Your task to perform on an android device: Open settings on Google Maps Image 0: 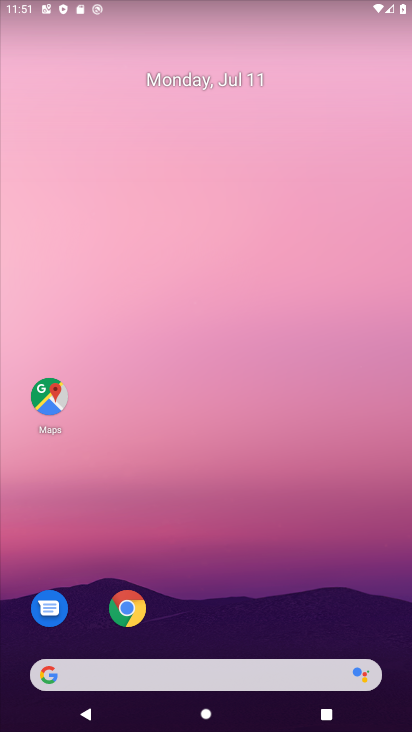
Step 0: click (49, 397)
Your task to perform on an android device: Open settings on Google Maps Image 1: 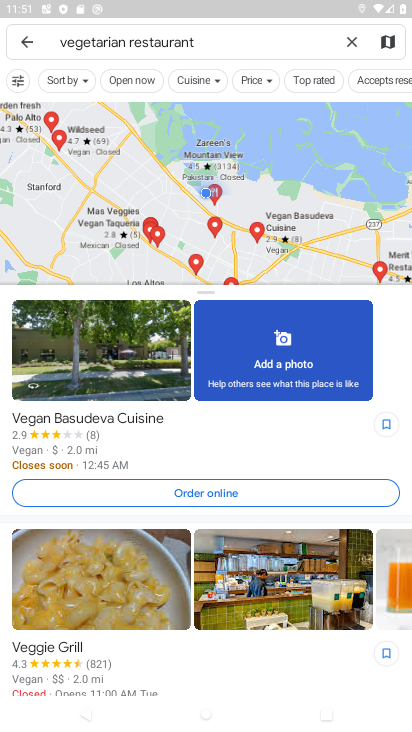
Step 1: click (22, 35)
Your task to perform on an android device: Open settings on Google Maps Image 2: 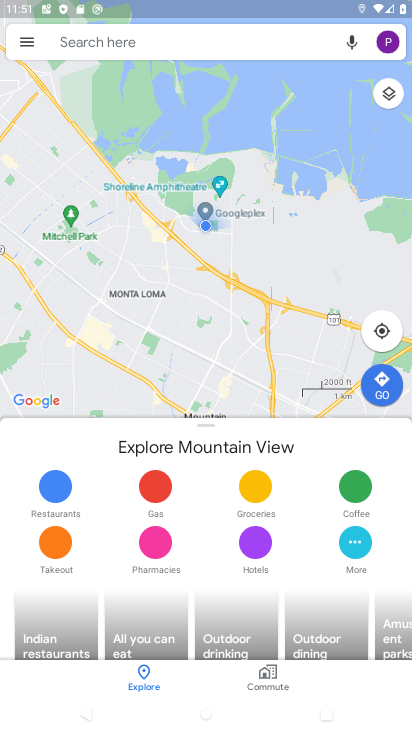
Step 2: click (22, 35)
Your task to perform on an android device: Open settings on Google Maps Image 3: 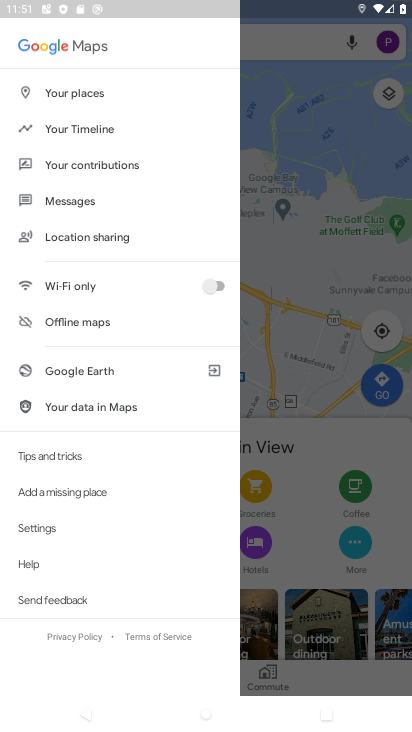
Step 3: click (33, 539)
Your task to perform on an android device: Open settings on Google Maps Image 4: 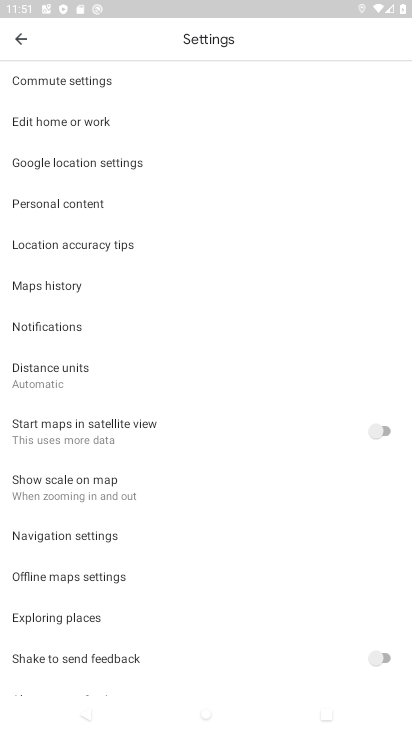
Step 4: task complete